Your task to perform on an android device: Open sound settings Image 0: 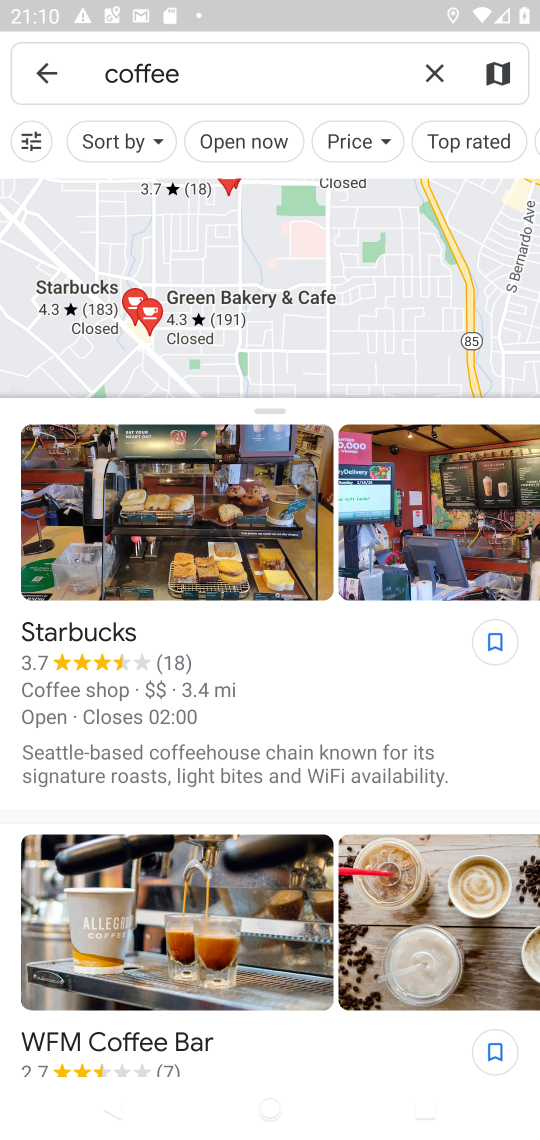
Step 0: press home button
Your task to perform on an android device: Open sound settings Image 1: 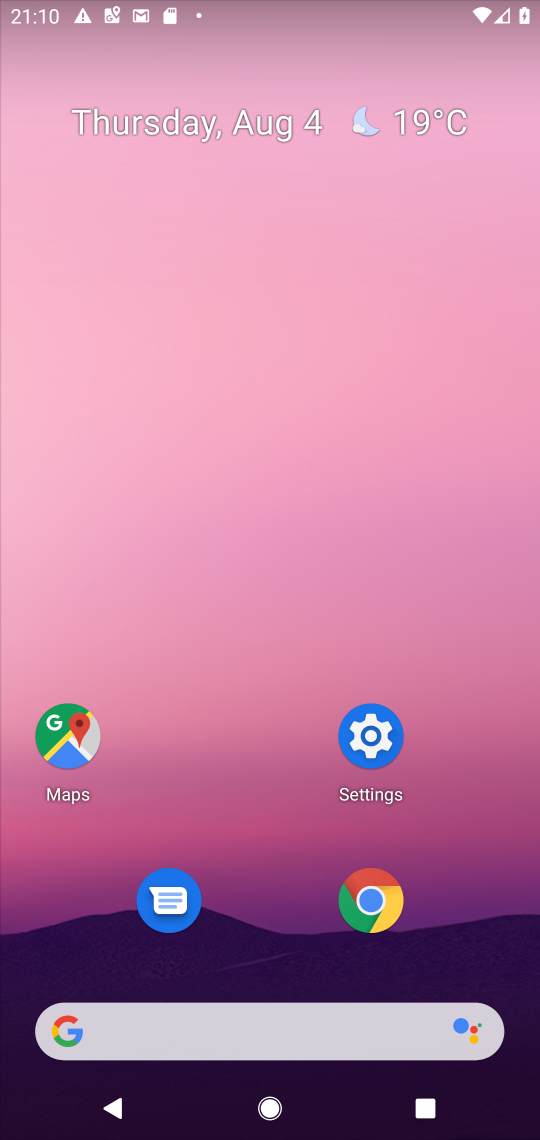
Step 1: click (363, 723)
Your task to perform on an android device: Open sound settings Image 2: 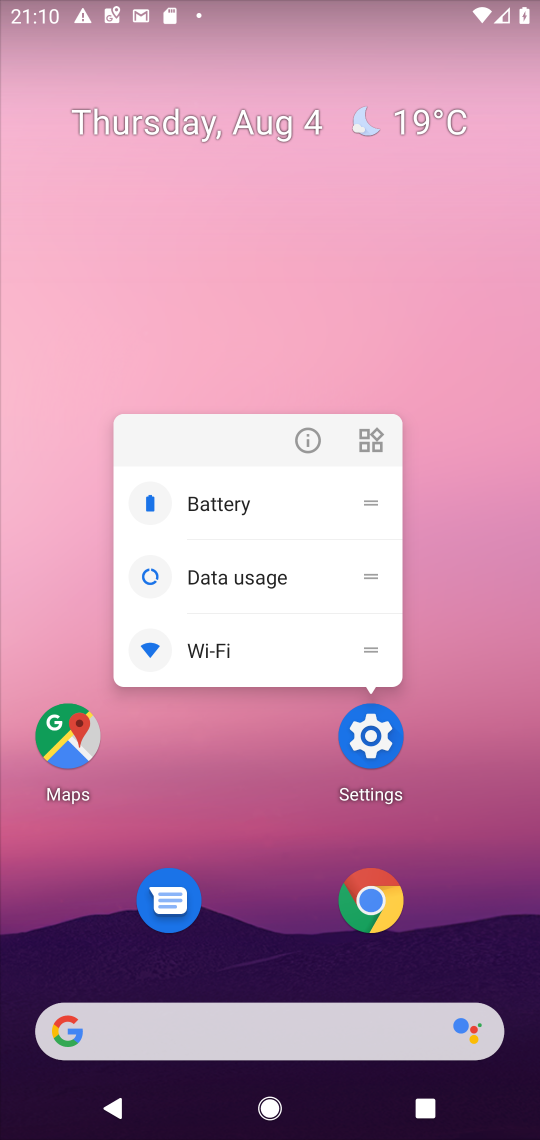
Step 2: click (362, 736)
Your task to perform on an android device: Open sound settings Image 3: 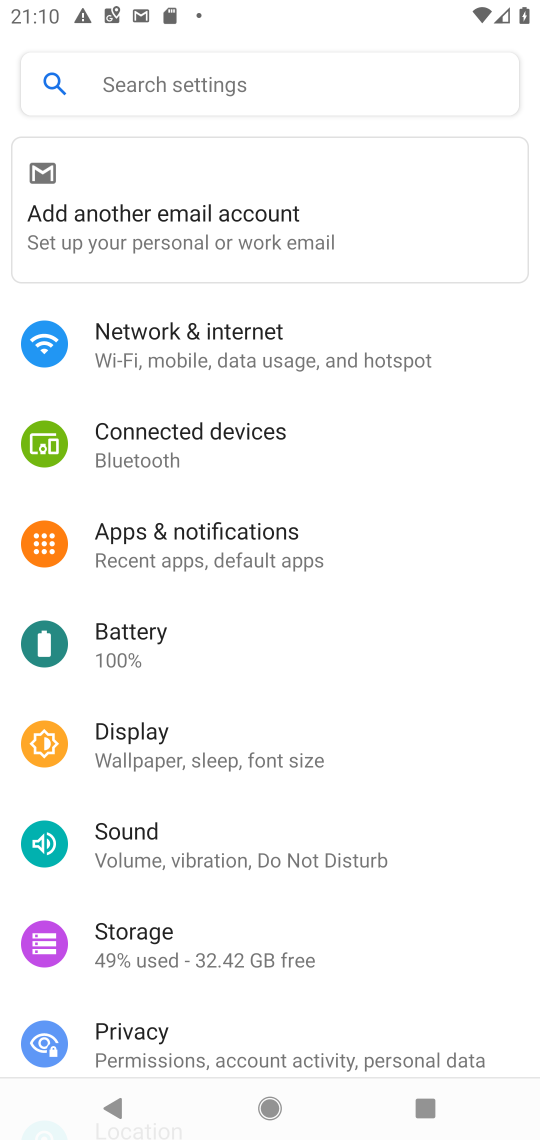
Step 3: click (151, 841)
Your task to perform on an android device: Open sound settings Image 4: 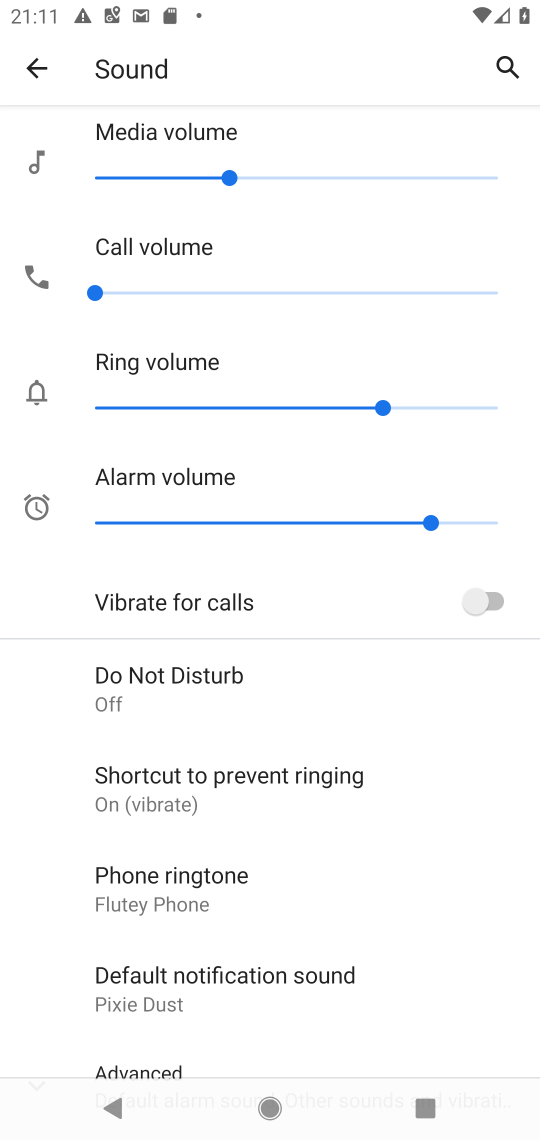
Step 4: task complete